Your task to perform on an android device: Empty the shopping cart on newegg.com. Add jbl charge 4 to the cart on newegg.com Image 0: 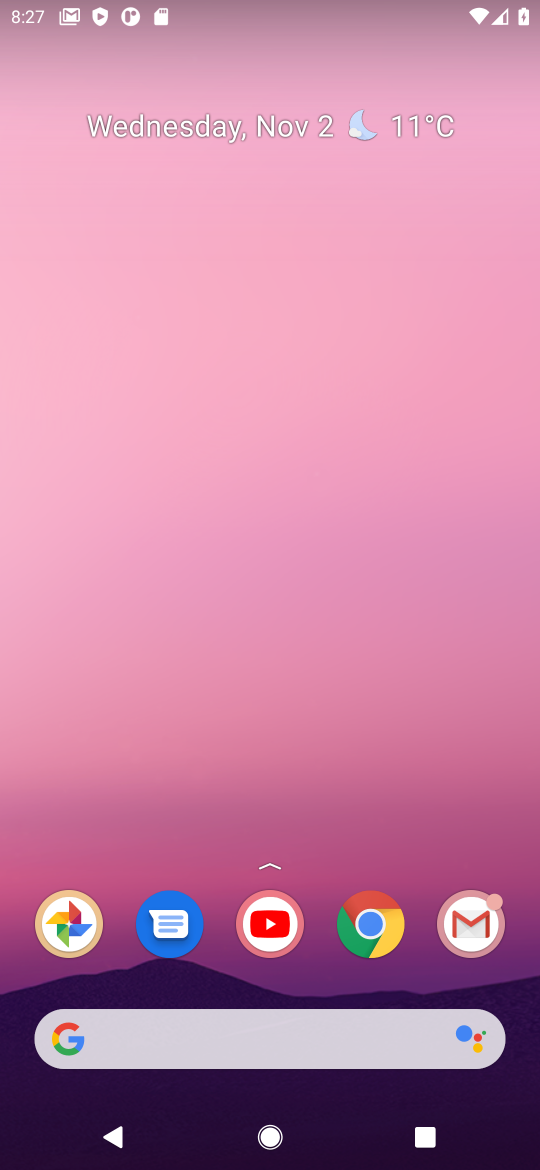
Step 0: click (355, 945)
Your task to perform on an android device: Empty the shopping cart on newegg.com. Add jbl charge 4 to the cart on newegg.com Image 1: 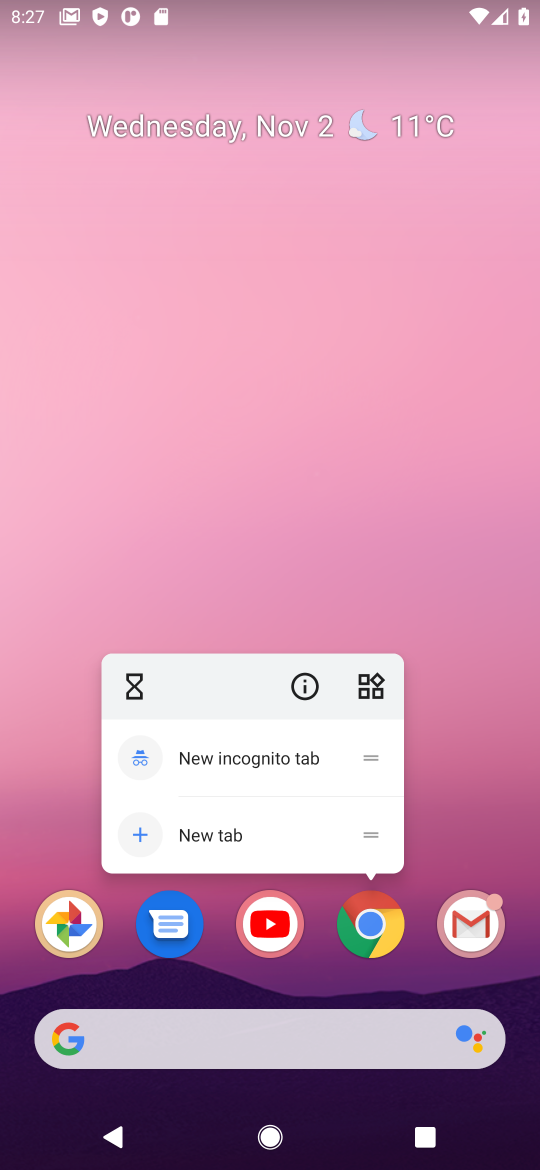
Step 1: click (373, 920)
Your task to perform on an android device: Empty the shopping cart on newegg.com. Add jbl charge 4 to the cart on newegg.com Image 2: 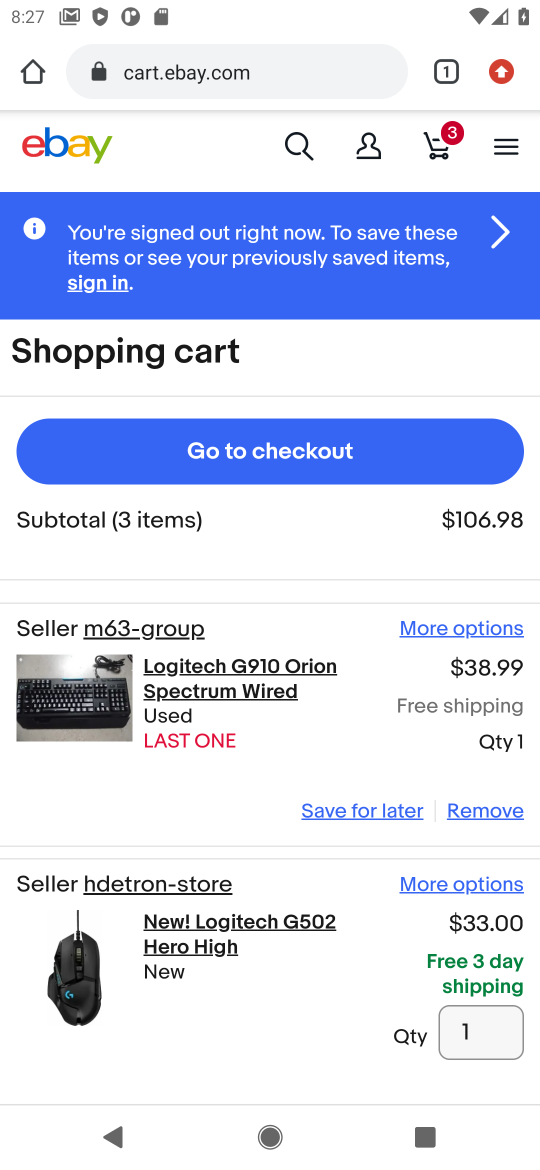
Step 2: click (160, 73)
Your task to perform on an android device: Empty the shopping cart on newegg.com. Add jbl charge 4 to the cart on newegg.com Image 3: 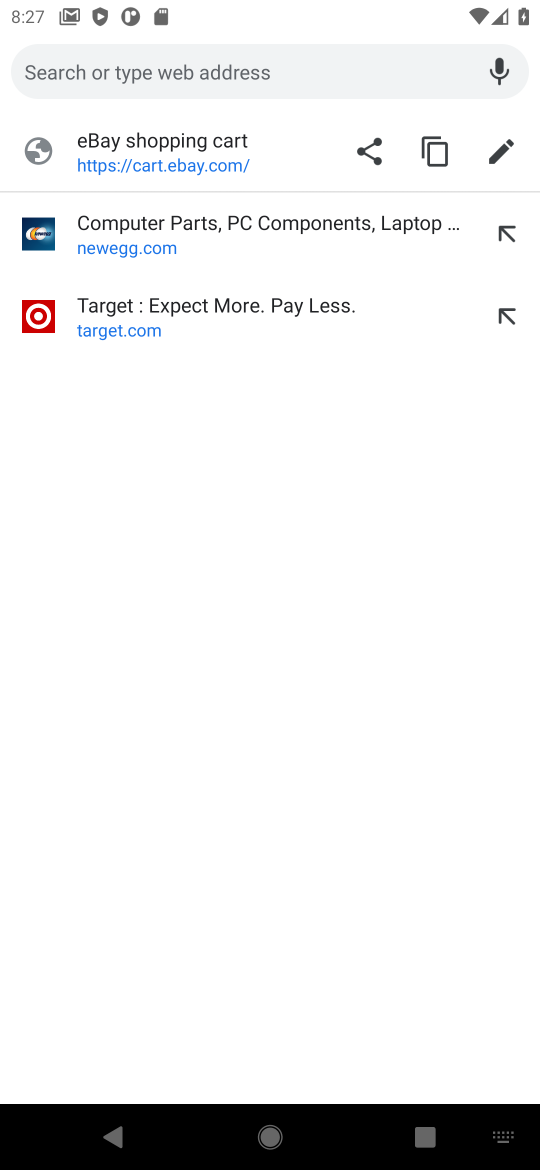
Step 3: type "newegg"
Your task to perform on an android device: Empty the shopping cart on newegg.com. Add jbl charge 4 to the cart on newegg.com Image 4: 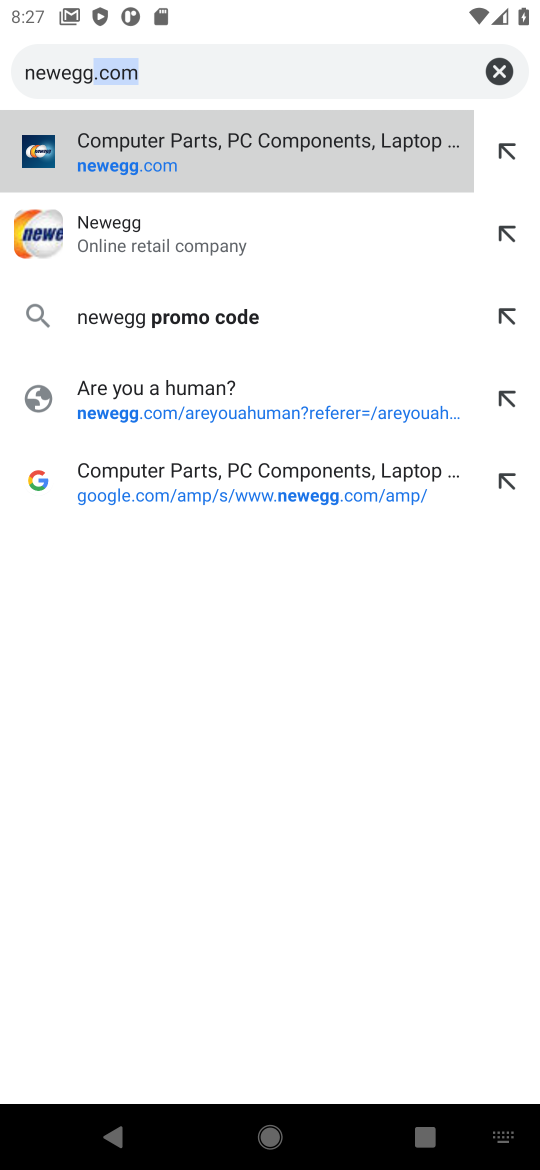
Step 4: click (147, 245)
Your task to perform on an android device: Empty the shopping cart on newegg.com. Add jbl charge 4 to the cart on newegg.com Image 5: 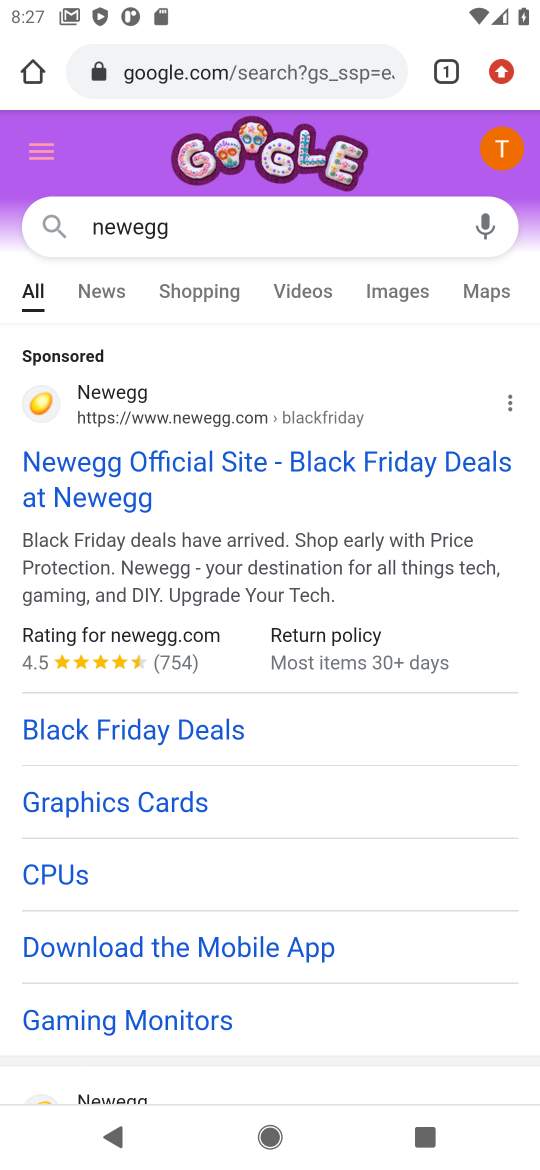
Step 5: drag from (188, 853) to (160, 191)
Your task to perform on an android device: Empty the shopping cart on newegg.com. Add jbl charge 4 to the cart on newegg.com Image 6: 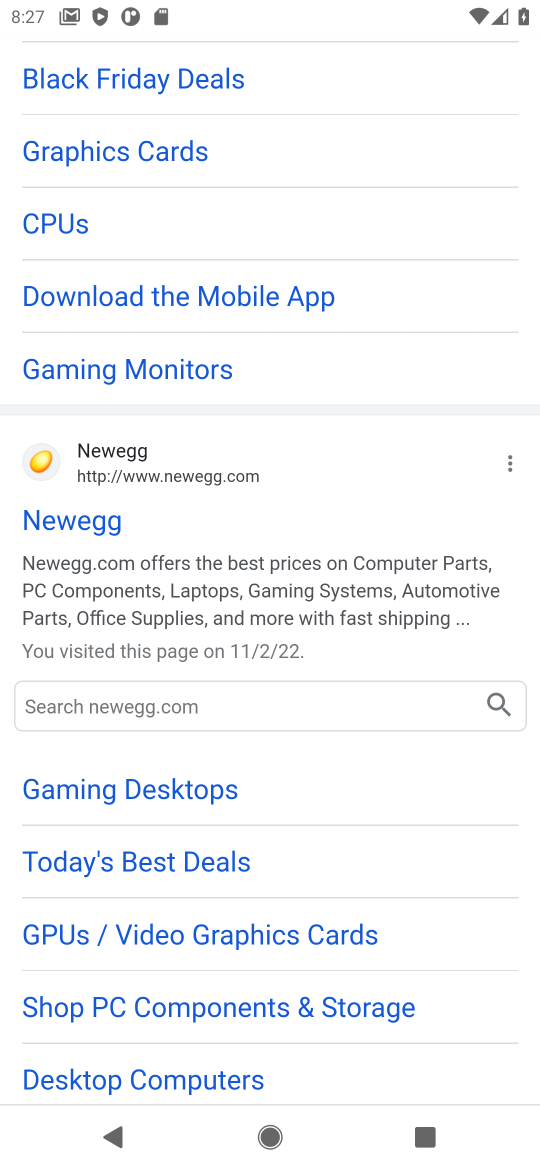
Step 6: click (77, 519)
Your task to perform on an android device: Empty the shopping cart on newegg.com. Add jbl charge 4 to the cart on newegg.com Image 7: 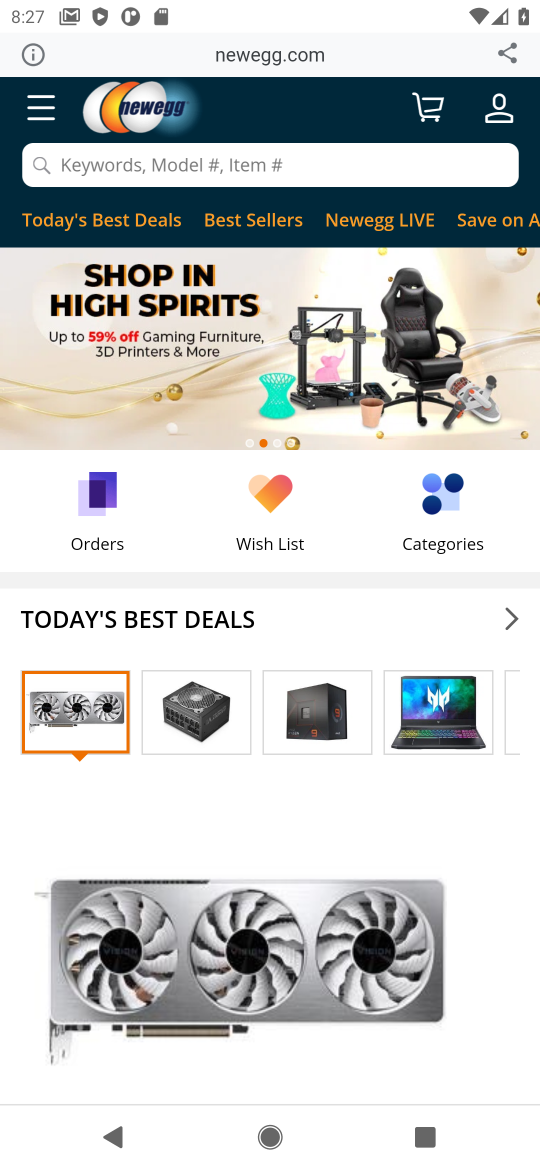
Step 7: click (177, 169)
Your task to perform on an android device: Empty the shopping cart on newegg.com. Add jbl charge 4 to the cart on newegg.com Image 8: 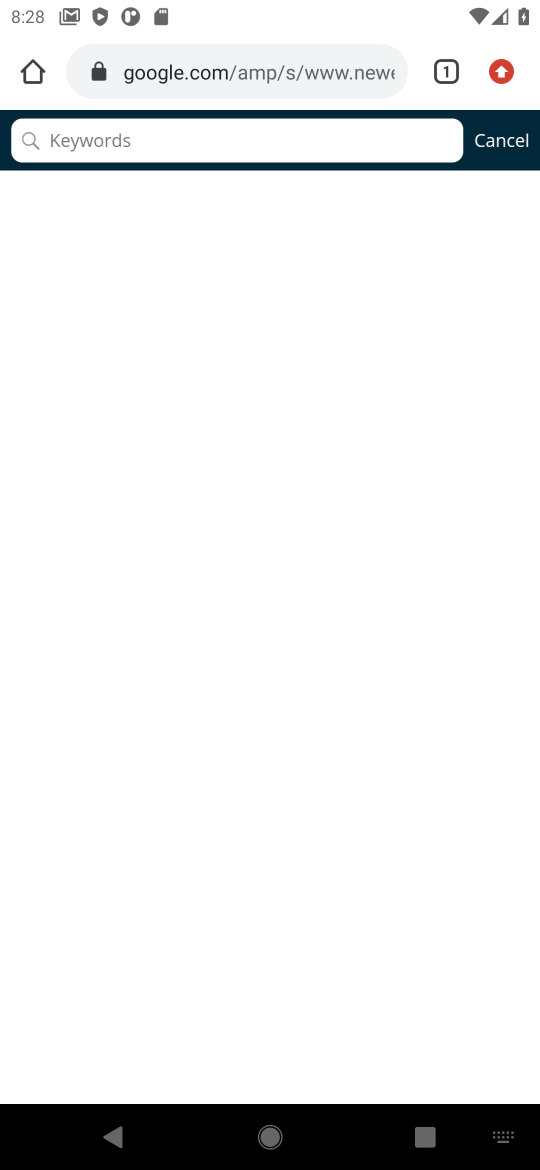
Step 8: type "jbl charge 4"
Your task to perform on an android device: Empty the shopping cart on newegg.com. Add jbl charge 4 to the cart on newegg.com Image 9: 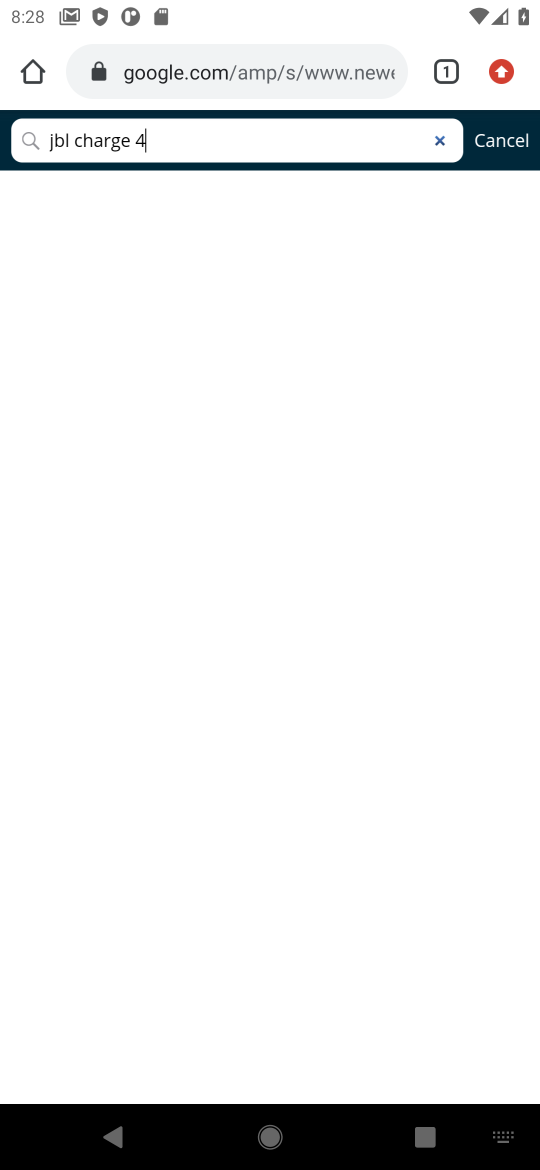
Step 9: type ""
Your task to perform on an android device: Empty the shopping cart on newegg.com. Add jbl charge 4 to the cart on newegg.com Image 10: 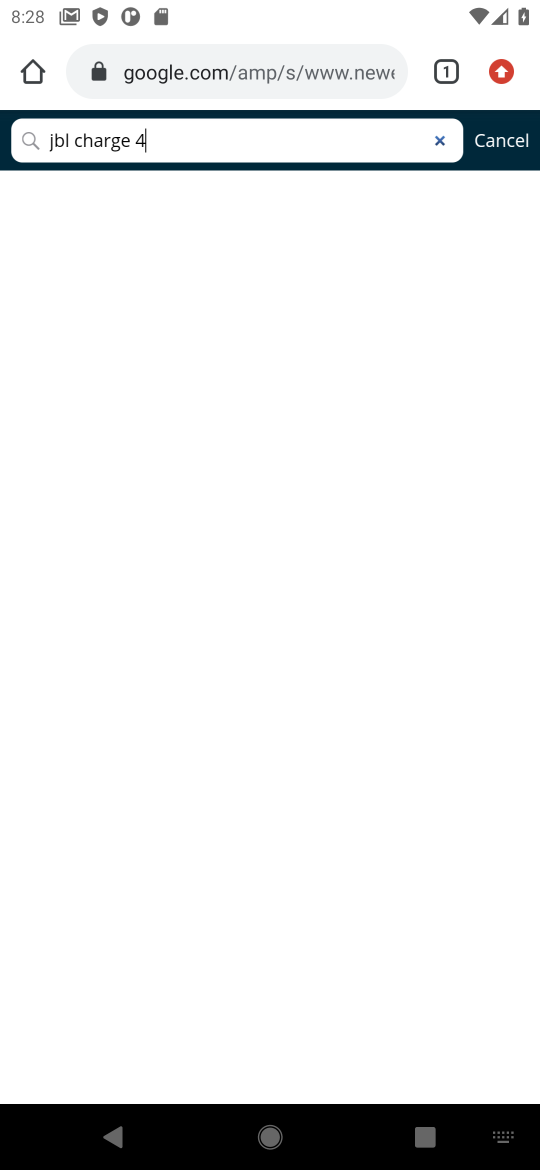
Step 10: click (321, 156)
Your task to perform on an android device: Empty the shopping cart on newegg.com. Add jbl charge 4 to the cart on newegg.com Image 11: 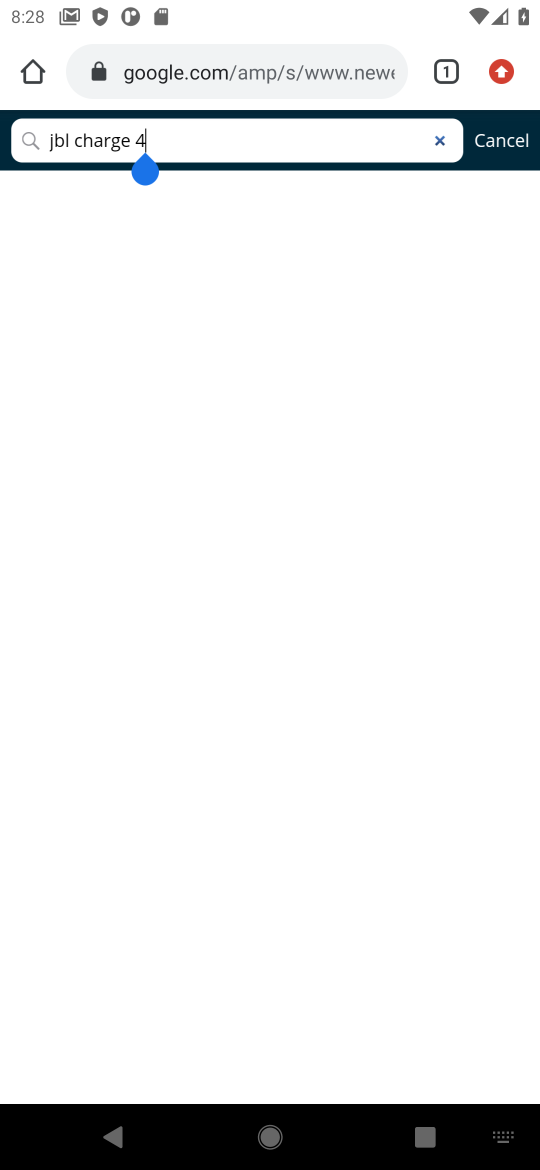
Step 11: click (24, 143)
Your task to perform on an android device: Empty the shopping cart on newegg.com. Add jbl charge 4 to the cart on newegg.com Image 12: 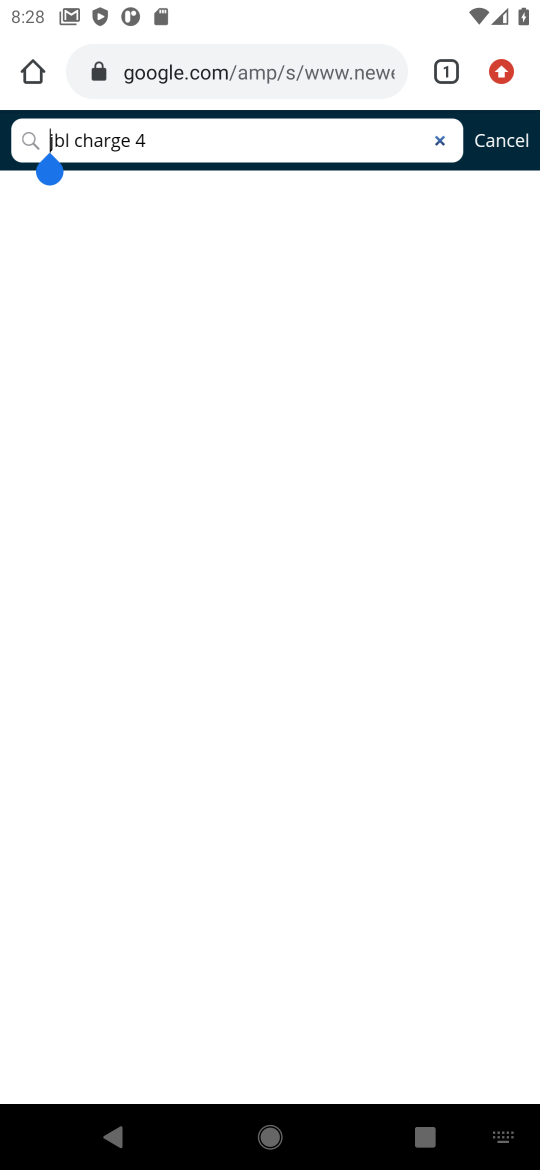
Step 12: click (258, 123)
Your task to perform on an android device: Empty the shopping cart on newegg.com. Add jbl charge 4 to the cart on newegg.com Image 13: 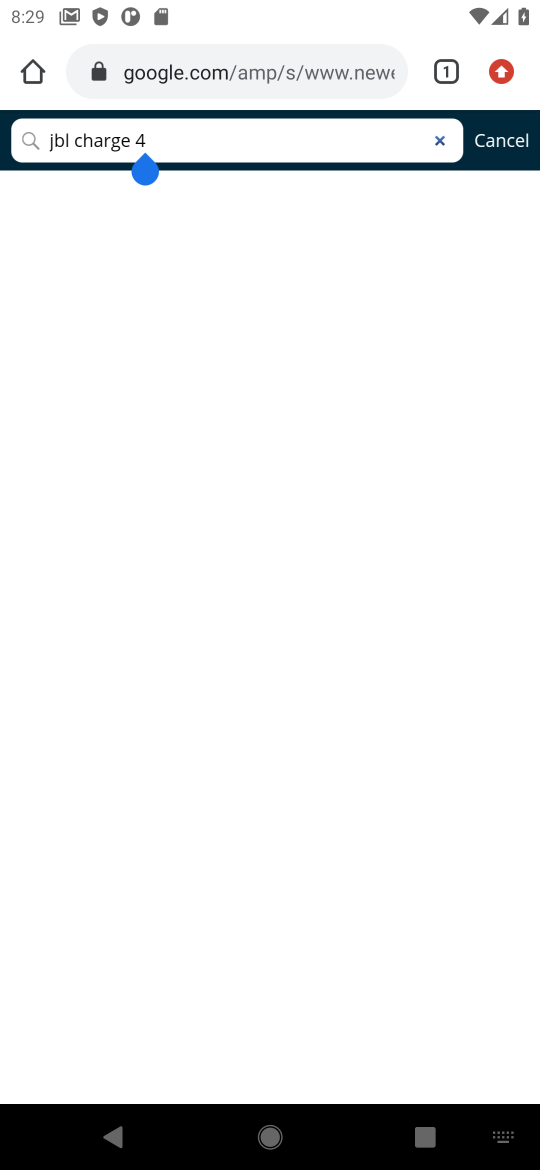
Step 13: click (65, 86)
Your task to perform on an android device: Empty the shopping cart on newegg.com. Add jbl charge 4 to the cart on newegg.com Image 14: 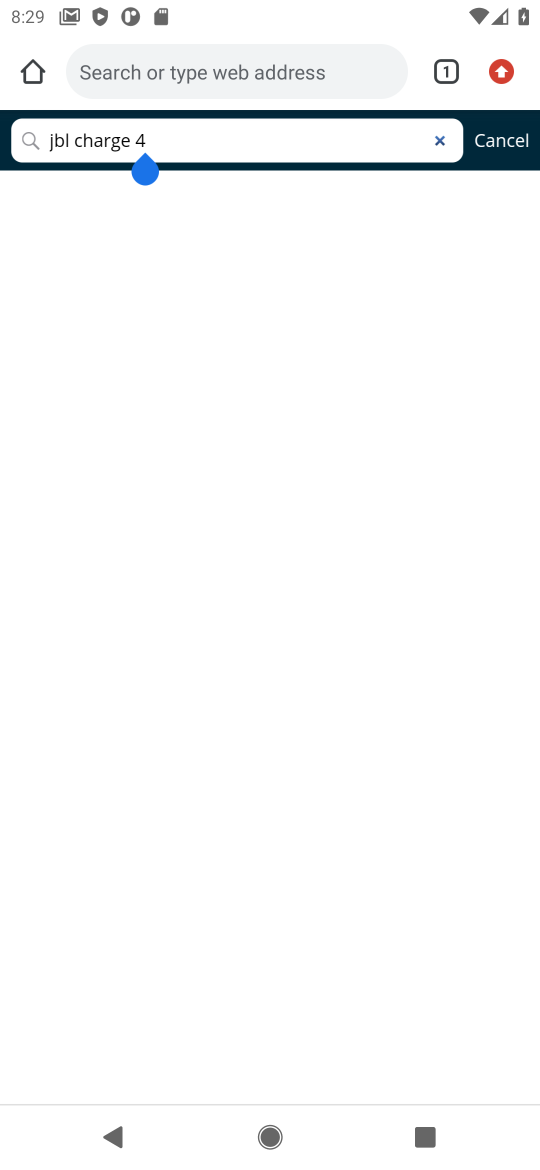
Step 14: click (29, 134)
Your task to perform on an android device: Empty the shopping cart on newegg.com. Add jbl charge 4 to the cart on newegg.com Image 15: 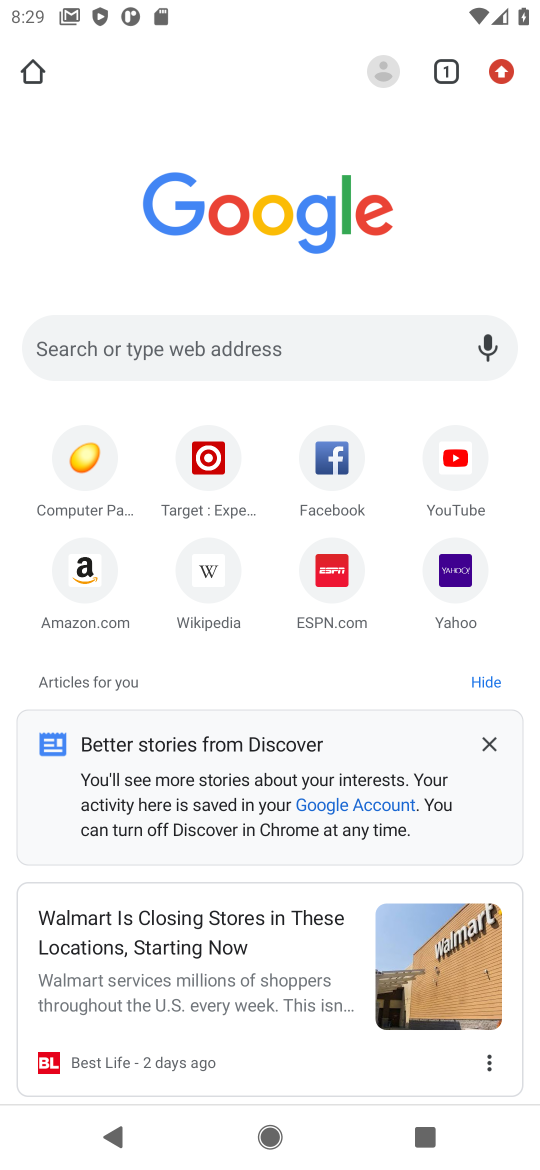
Step 15: task complete